Your task to perform on an android device: toggle data saver in the chrome app Image 0: 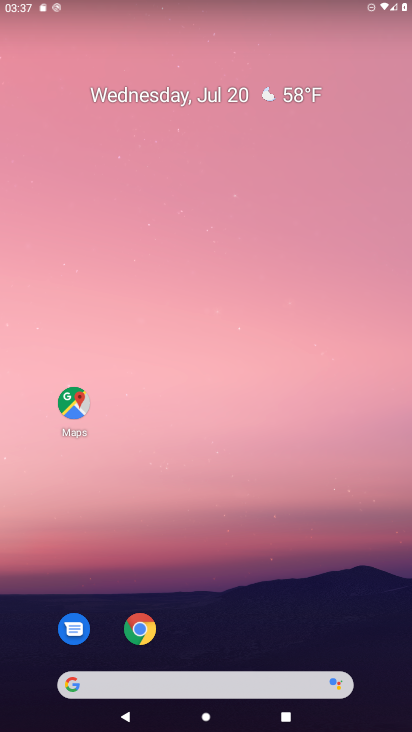
Step 0: drag from (286, 685) to (332, 209)
Your task to perform on an android device: toggle data saver in the chrome app Image 1: 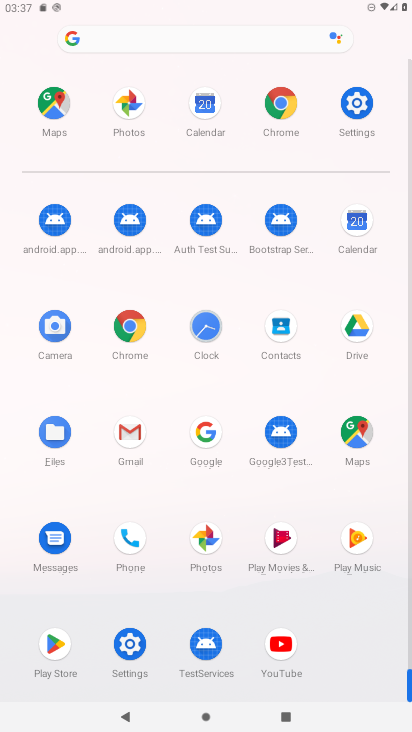
Step 1: click (293, 93)
Your task to perform on an android device: toggle data saver in the chrome app Image 2: 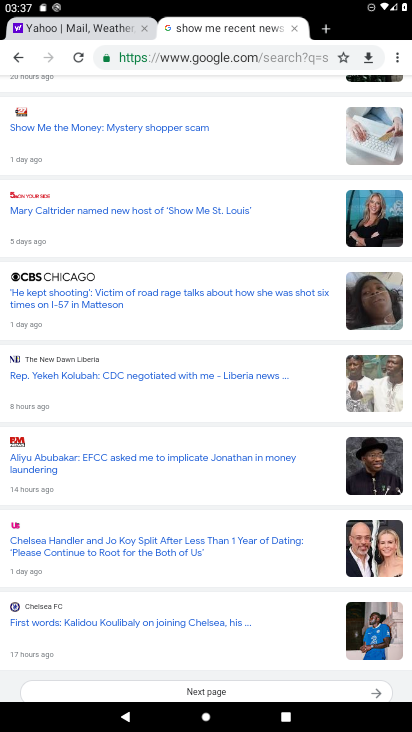
Step 2: click (404, 54)
Your task to perform on an android device: toggle data saver in the chrome app Image 3: 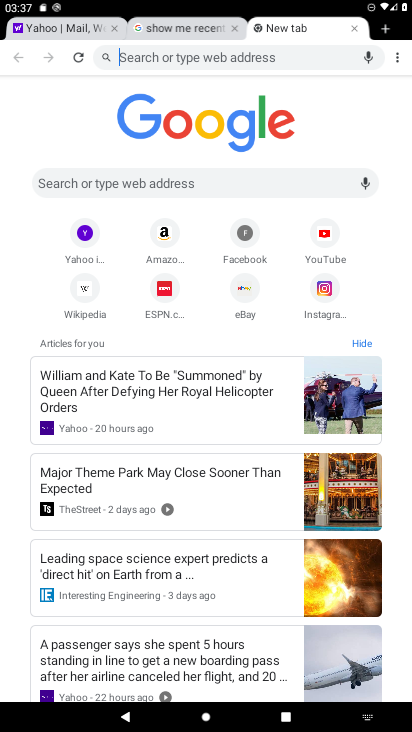
Step 3: drag from (397, 46) to (277, 266)
Your task to perform on an android device: toggle data saver in the chrome app Image 4: 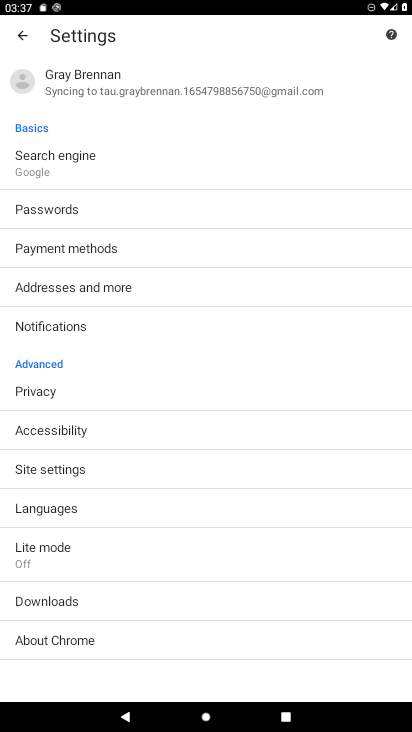
Step 4: click (91, 548)
Your task to perform on an android device: toggle data saver in the chrome app Image 5: 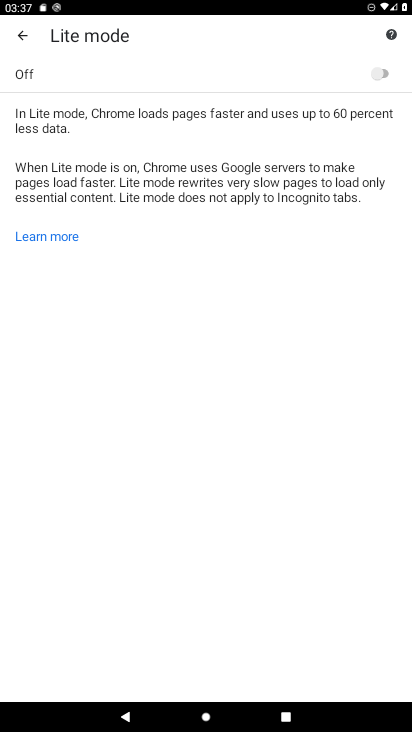
Step 5: click (347, 60)
Your task to perform on an android device: toggle data saver in the chrome app Image 6: 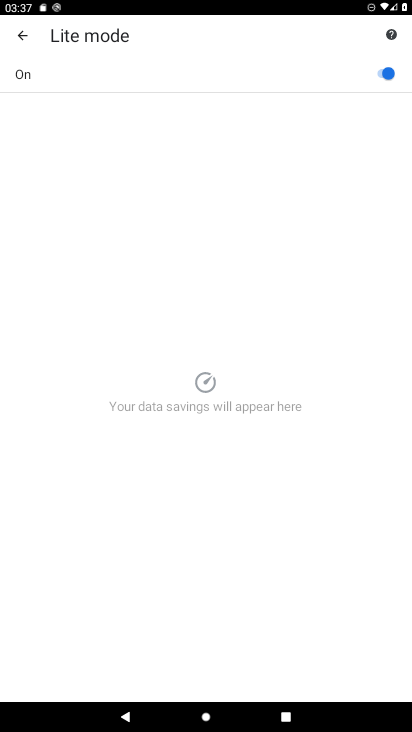
Step 6: task complete